Your task to perform on an android device: open the mobile data screen to see how much data has been used Image 0: 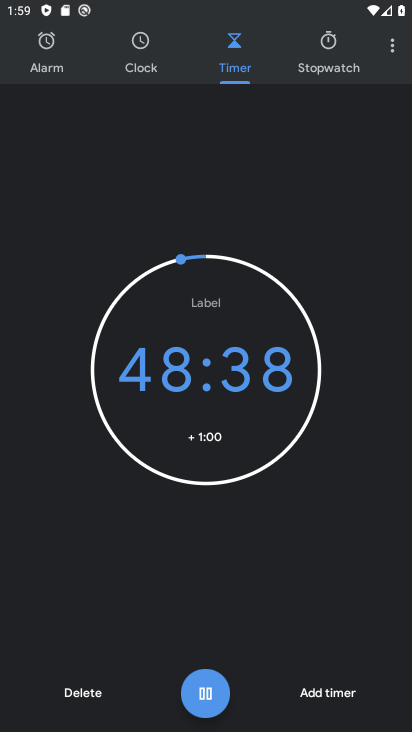
Step 0: press home button
Your task to perform on an android device: open the mobile data screen to see how much data has been used Image 1: 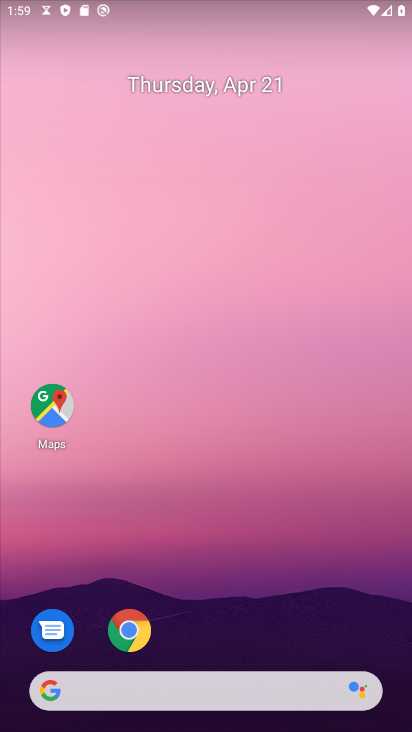
Step 1: drag from (346, 625) to (365, 8)
Your task to perform on an android device: open the mobile data screen to see how much data has been used Image 2: 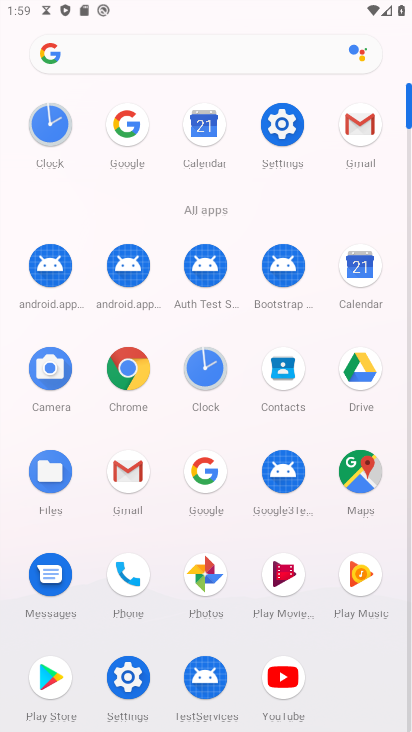
Step 2: click (274, 128)
Your task to perform on an android device: open the mobile data screen to see how much data has been used Image 3: 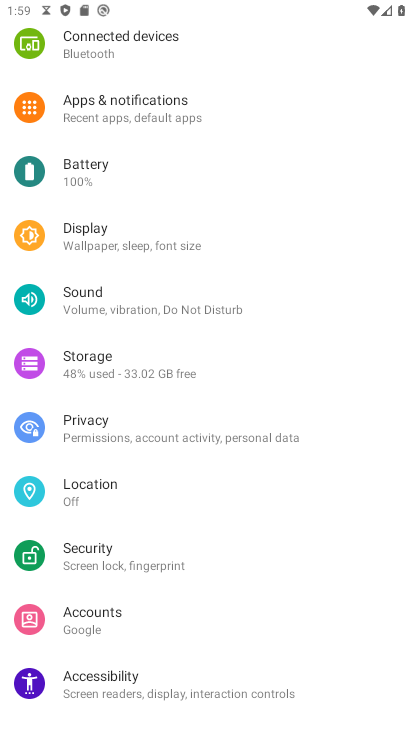
Step 3: drag from (286, 167) to (287, 614)
Your task to perform on an android device: open the mobile data screen to see how much data has been used Image 4: 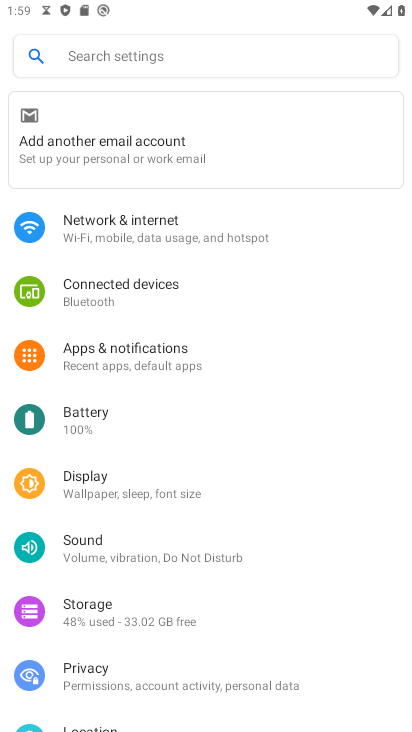
Step 4: click (142, 238)
Your task to perform on an android device: open the mobile data screen to see how much data has been used Image 5: 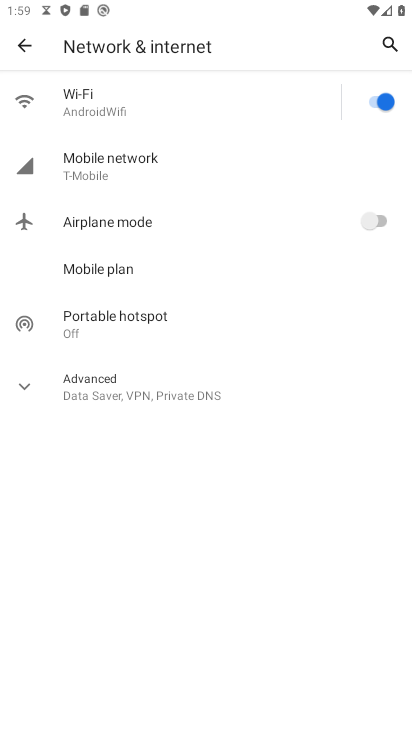
Step 5: click (95, 166)
Your task to perform on an android device: open the mobile data screen to see how much data has been used Image 6: 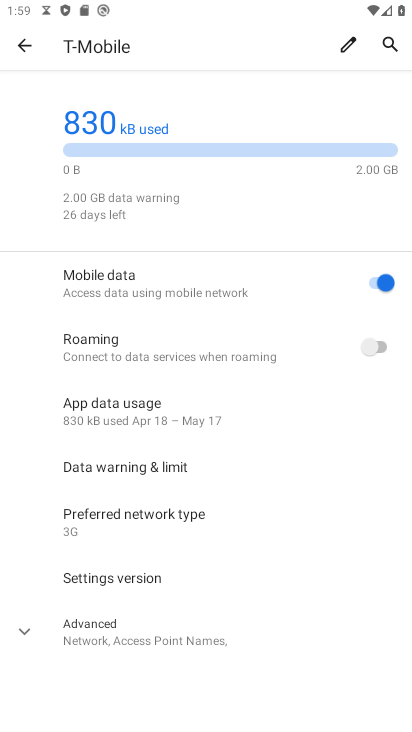
Step 6: click (97, 418)
Your task to perform on an android device: open the mobile data screen to see how much data has been used Image 7: 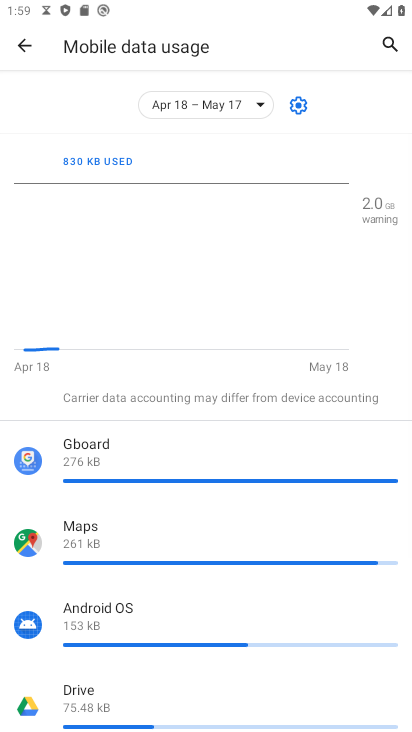
Step 7: task complete